Your task to perform on an android device: open app "Airtel Thanks" (install if not already installed), go to login, and select forgot password Image 0: 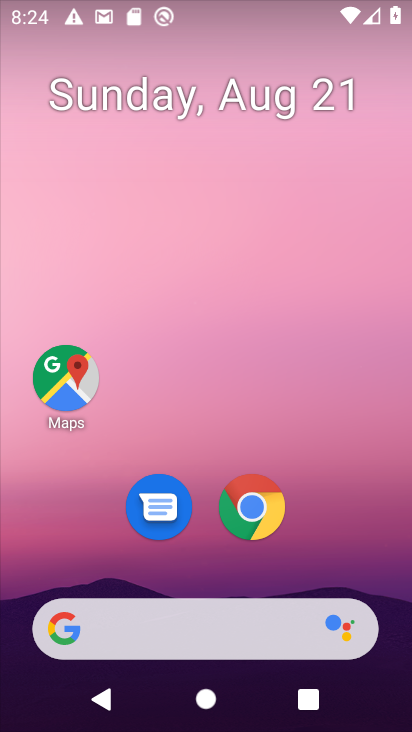
Step 0: drag from (201, 514) to (201, 99)
Your task to perform on an android device: open app "Airtel Thanks" (install if not already installed), go to login, and select forgot password Image 1: 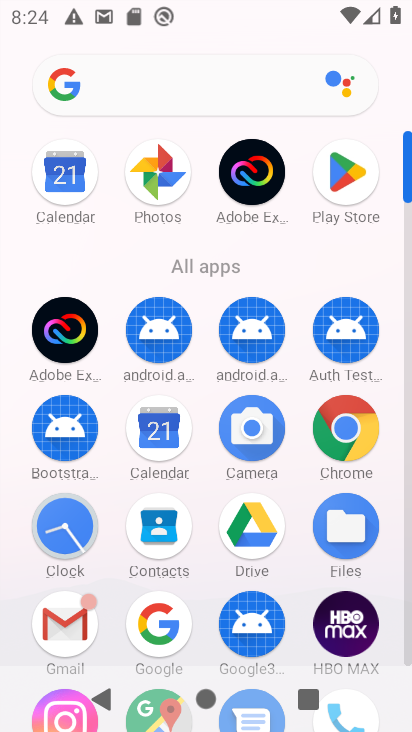
Step 1: click (347, 173)
Your task to perform on an android device: open app "Airtel Thanks" (install if not already installed), go to login, and select forgot password Image 2: 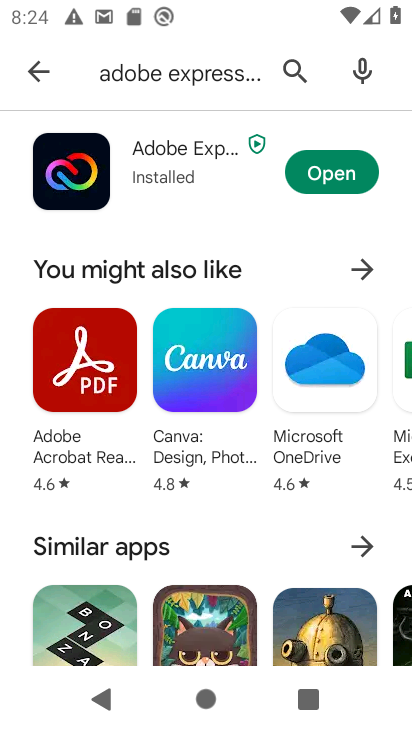
Step 2: click (36, 73)
Your task to perform on an android device: open app "Airtel Thanks" (install if not already installed), go to login, and select forgot password Image 3: 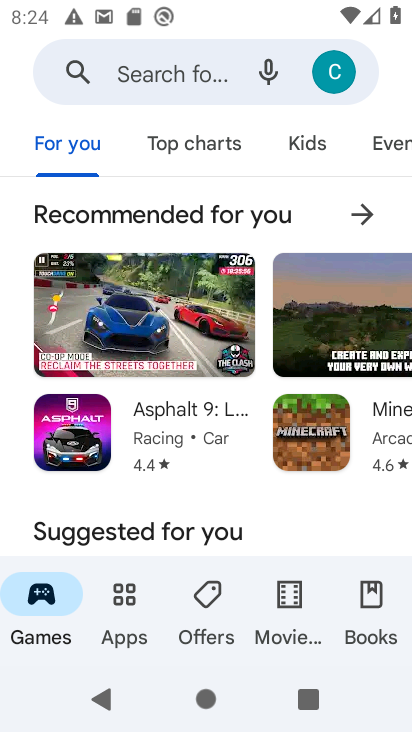
Step 3: click (172, 61)
Your task to perform on an android device: open app "Airtel Thanks" (install if not already installed), go to login, and select forgot password Image 4: 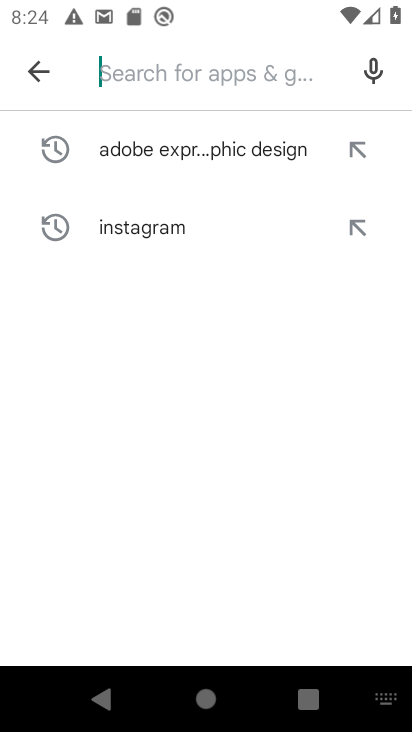
Step 4: type "Airtel Thanks"
Your task to perform on an android device: open app "Airtel Thanks" (install if not already installed), go to login, and select forgot password Image 5: 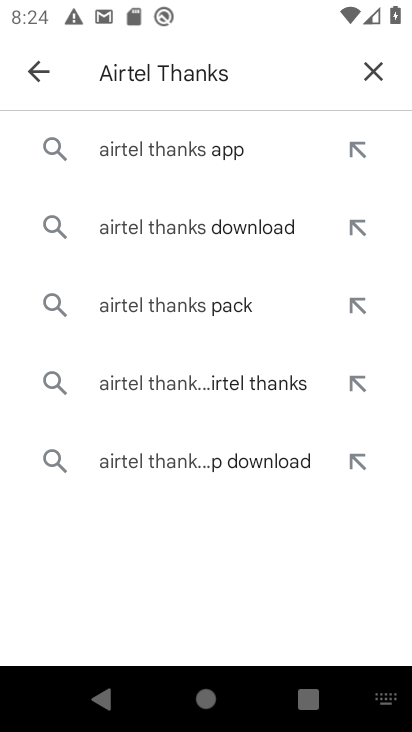
Step 5: click (210, 152)
Your task to perform on an android device: open app "Airtel Thanks" (install if not already installed), go to login, and select forgot password Image 6: 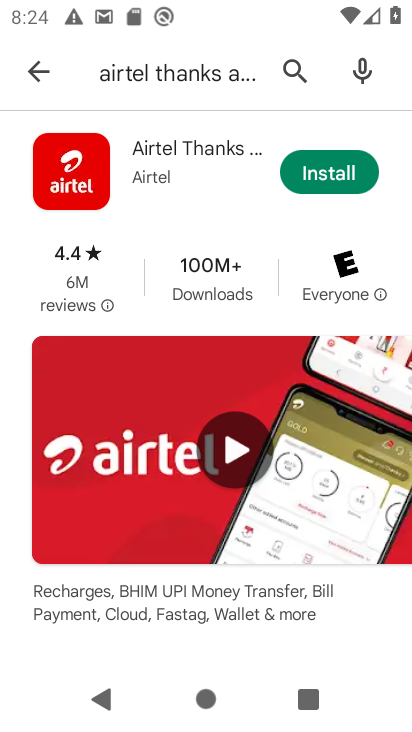
Step 6: click (317, 169)
Your task to perform on an android device: open app "Airtel Thanks" (install if not already installed), go to login, and select forgot password Image 7: 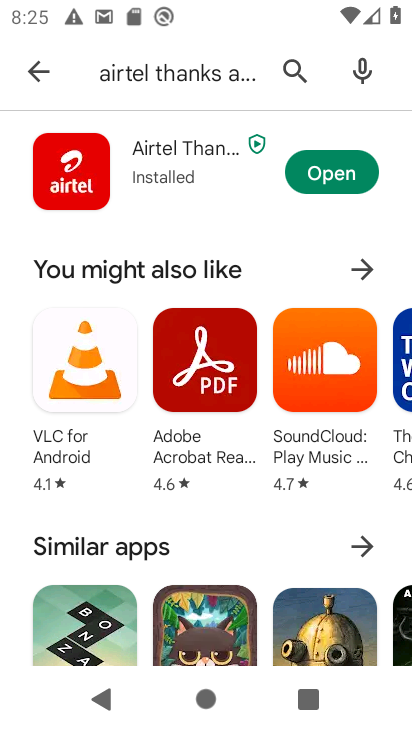
Step 7: click (317, 169)
Your task to perform on an android device: open app "Airtel Thanks" (install if not already installed), go to login, and select forgot password Image 8: 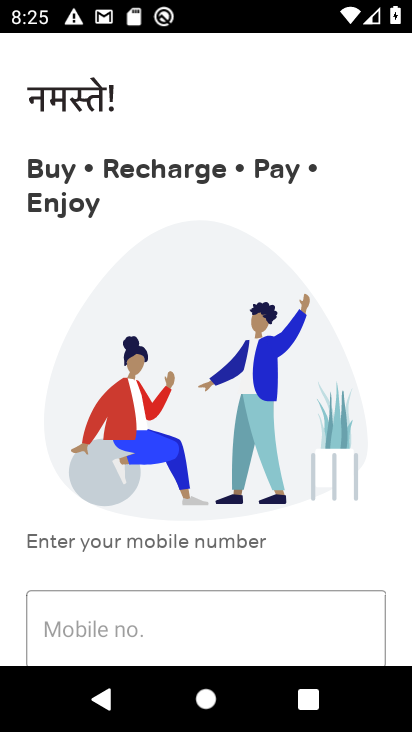
Step 8: task complete